Your task to perform on an android device: open a new tab in the chrome app Image 0: 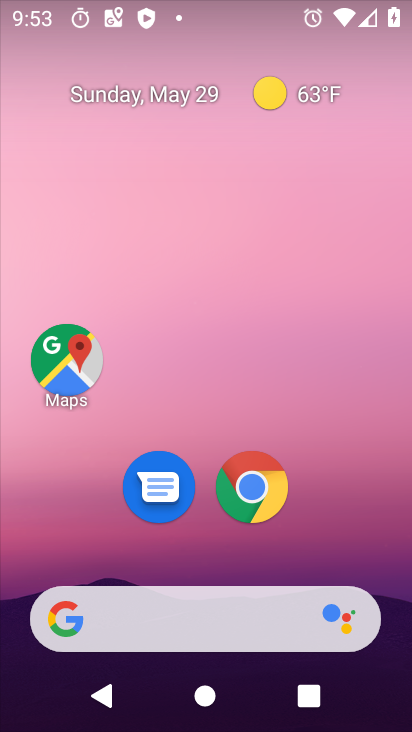
Step 0: drag from (78, 609) to (299, 17)
Your task to perform on an android device: open a new tab in the chrome app Image 1: 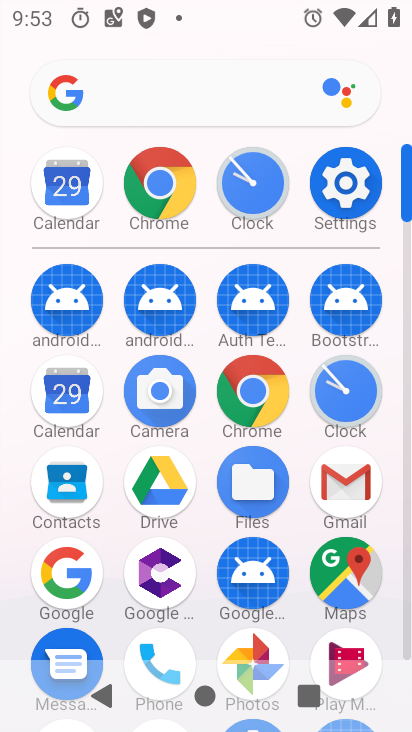
Step 1: click (161, 208)
Your task to perform on an android device: open a new tab in the chrome app Image 2: 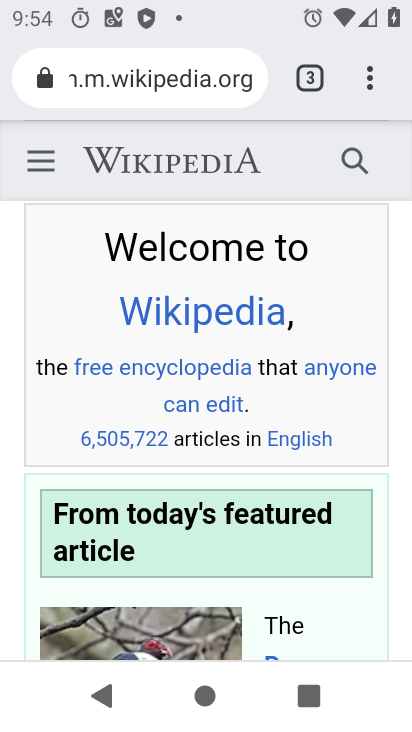
Step 2: drag from (303, 89) to (301, 328)
Your task to perform on an android device: open a new tab in the chrome app Image 3: 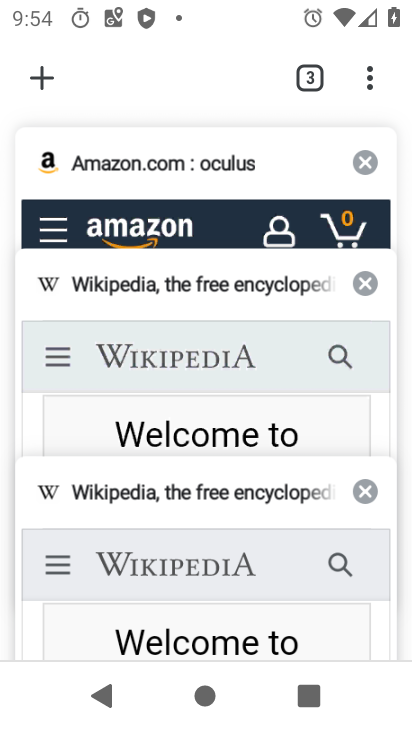
Step 3: click (39, 77)
Your task to perform on an android device: open a new tab in the chrome app Image 4: 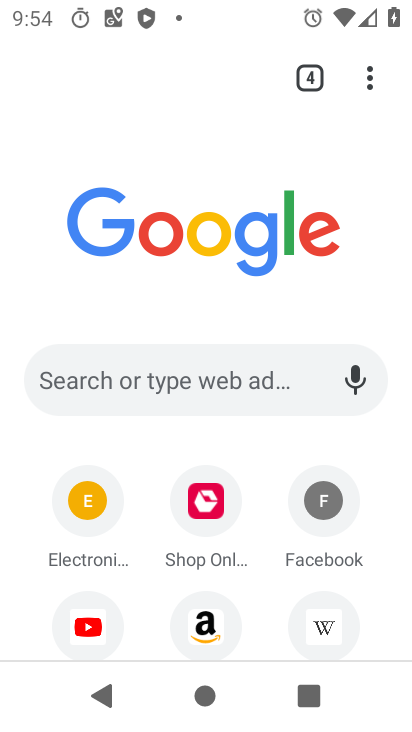
Step 4: task complete